Your task to perform on an android device: Check the weather Image 0: 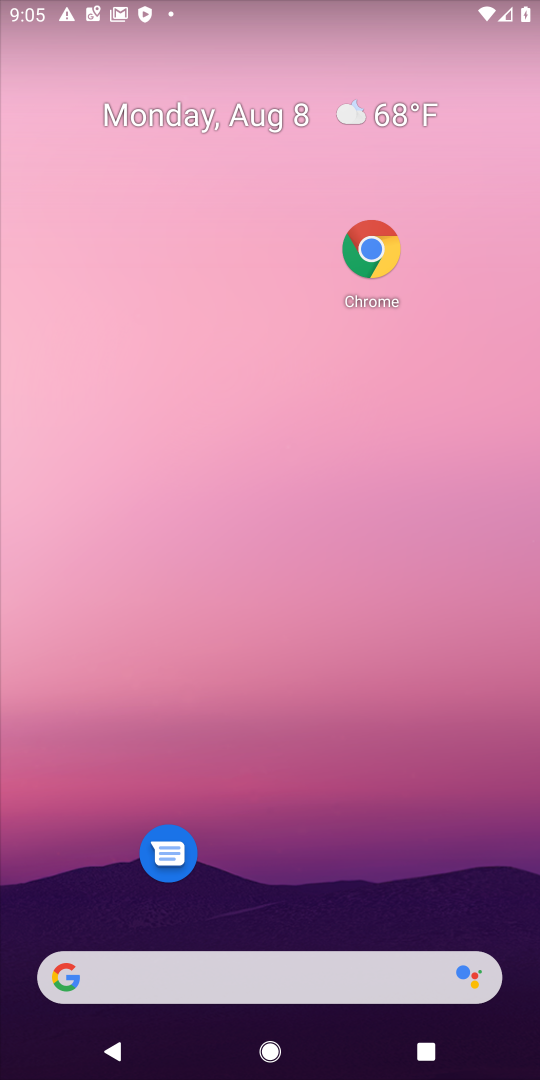
Step 0: press home button
Your task to perform on an android device: Check the weather Image 1: 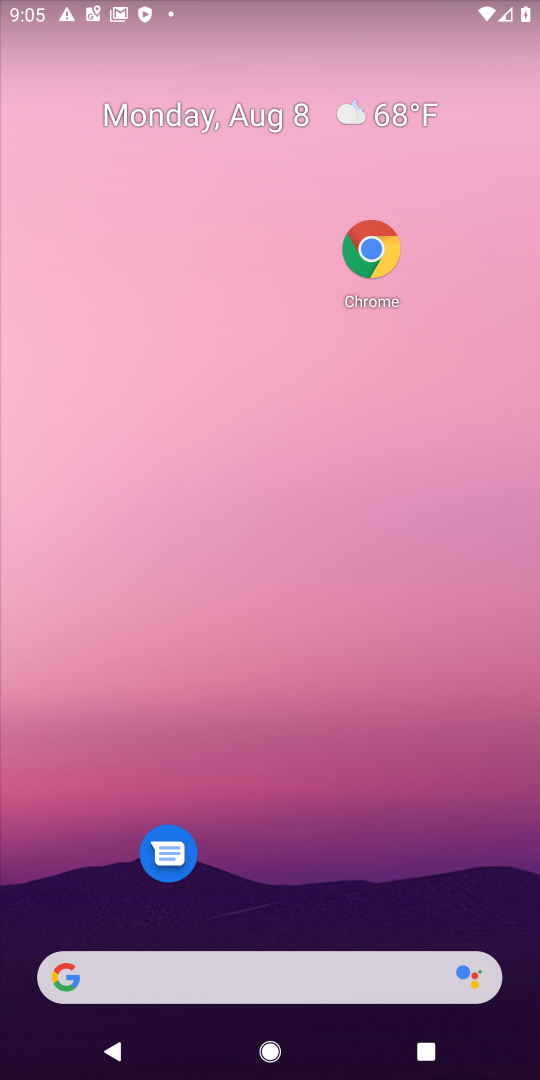
Step 1: click (383, 240)
Your task to perform on an android device: Check the weather Image 2: 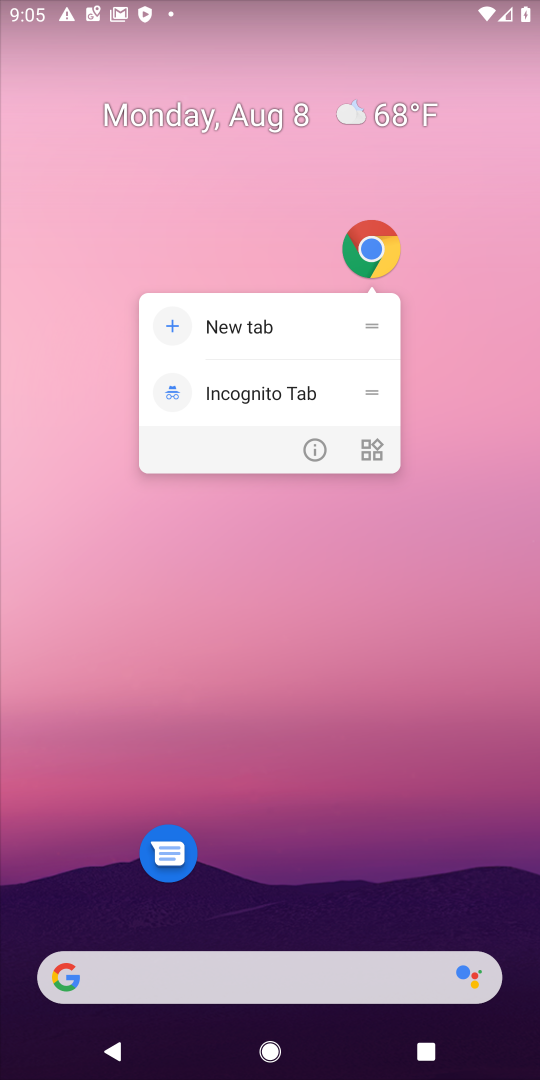
Step 2: click (389, 247)
Your task to perform on an android device: Check the weather Image 3: 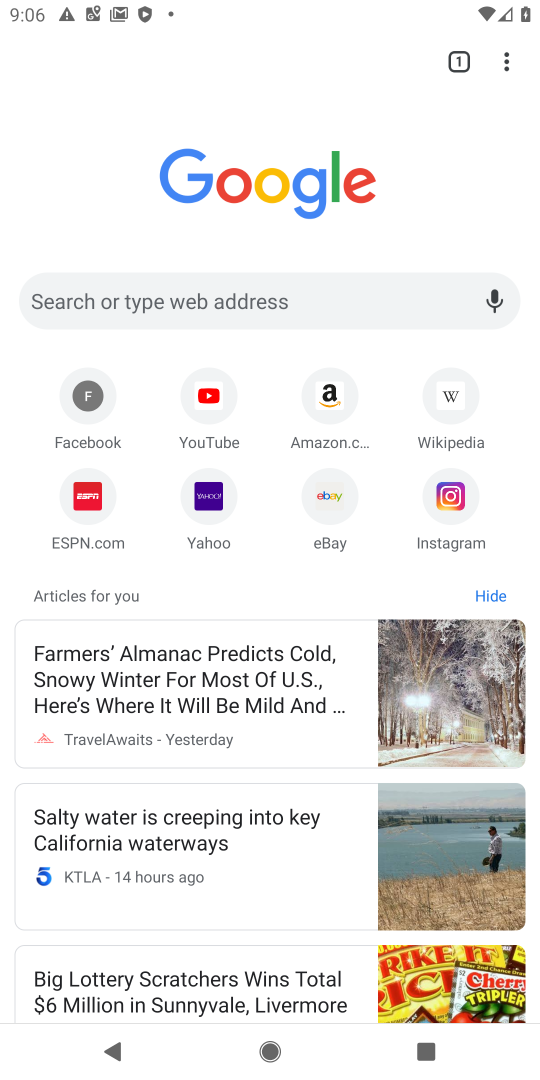
Step 3: click (262, 303)
Your task to perform on an android device: Check the weather Image 4: 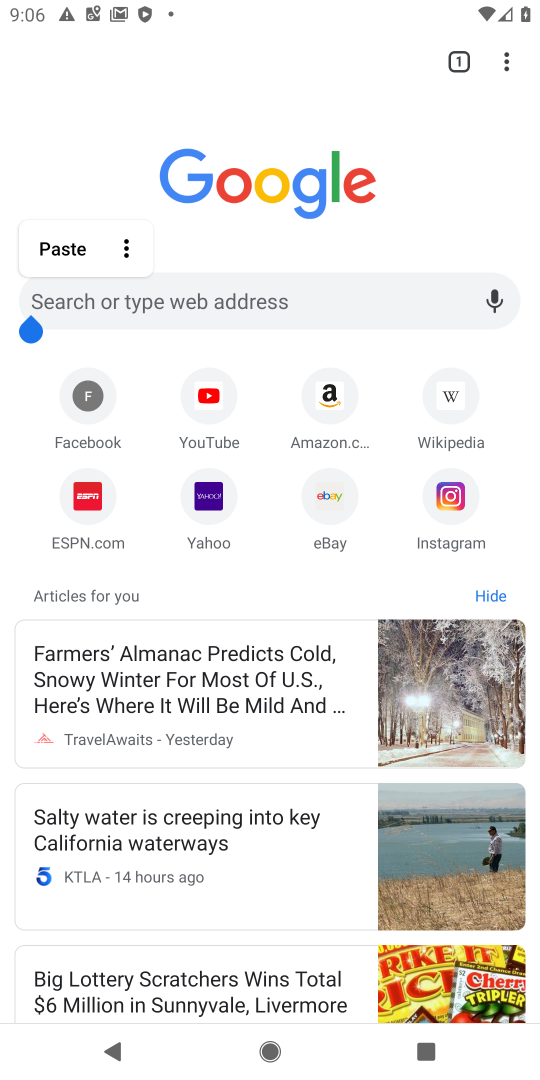
Step 4: click (154, 294)
Your task to perform on an android device: Check the weather Image 5: 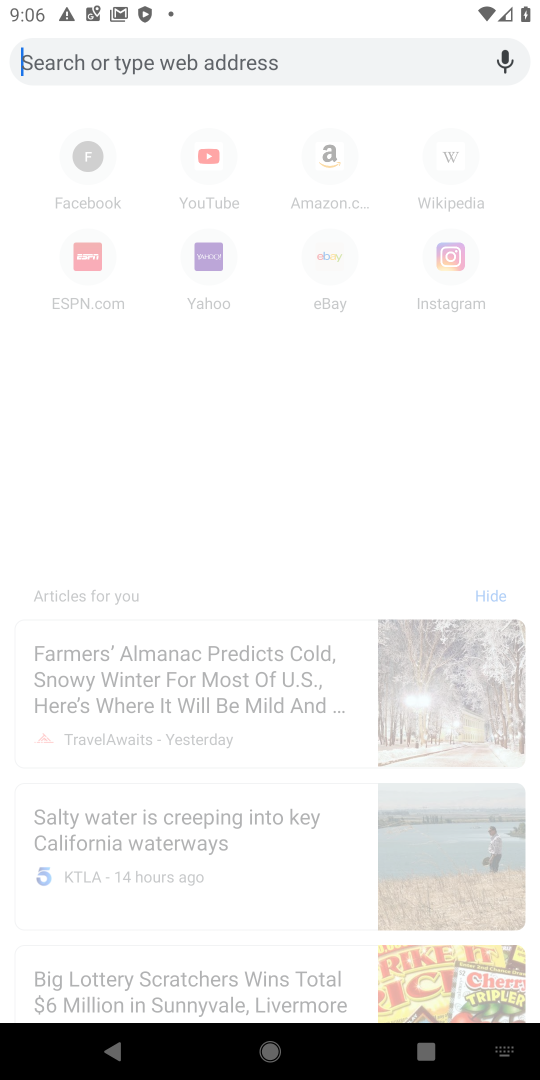
Step 5: type "weather"
Your task to perform on an android device: Check the weather Image 6: 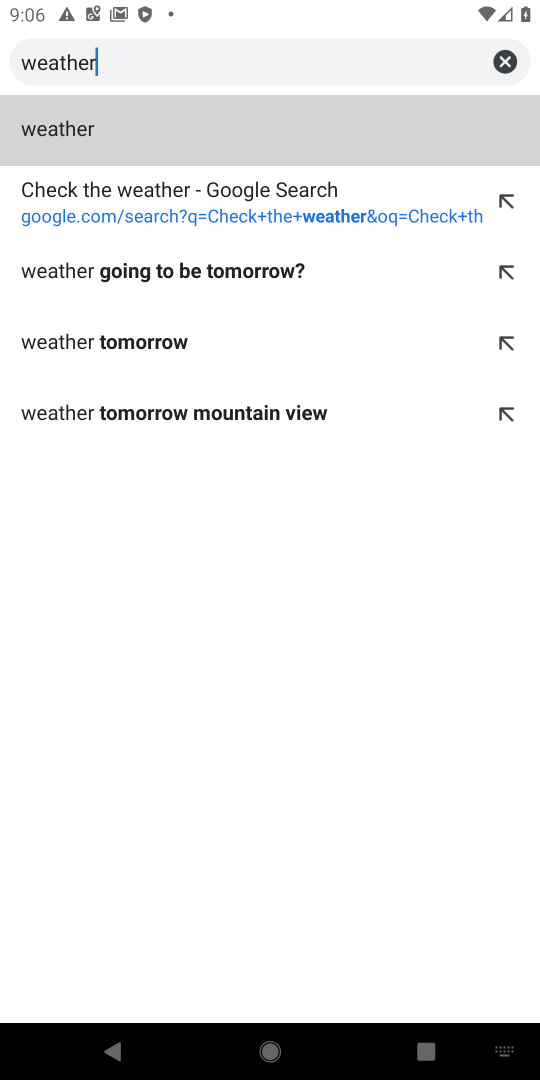
Step 6: click (136, 202)
Your task to perform on an android device: Check the weather Image 7: 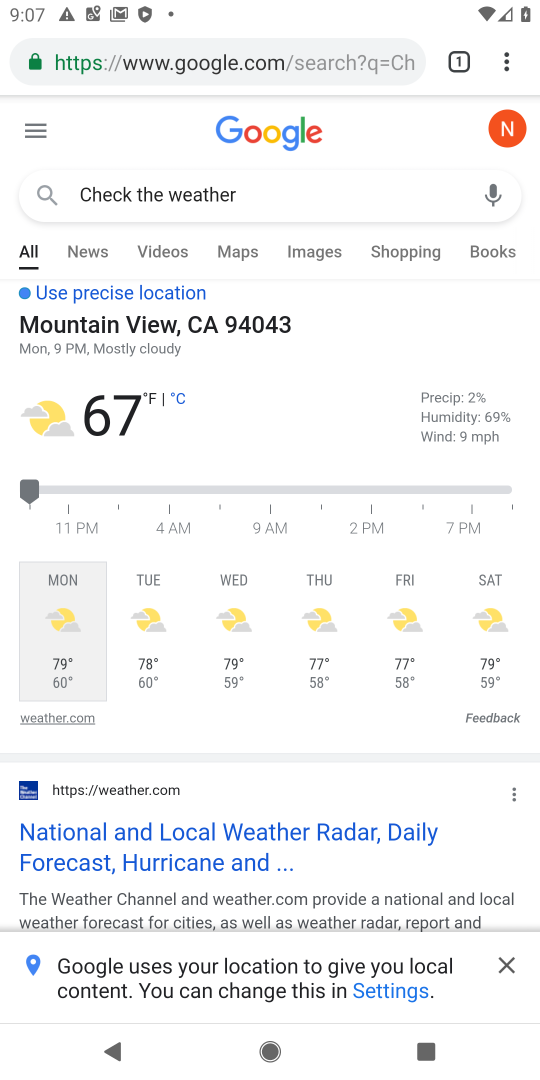
Step 7: task complete